Your task to perform on an android device: When is my next appointment? Image 0: 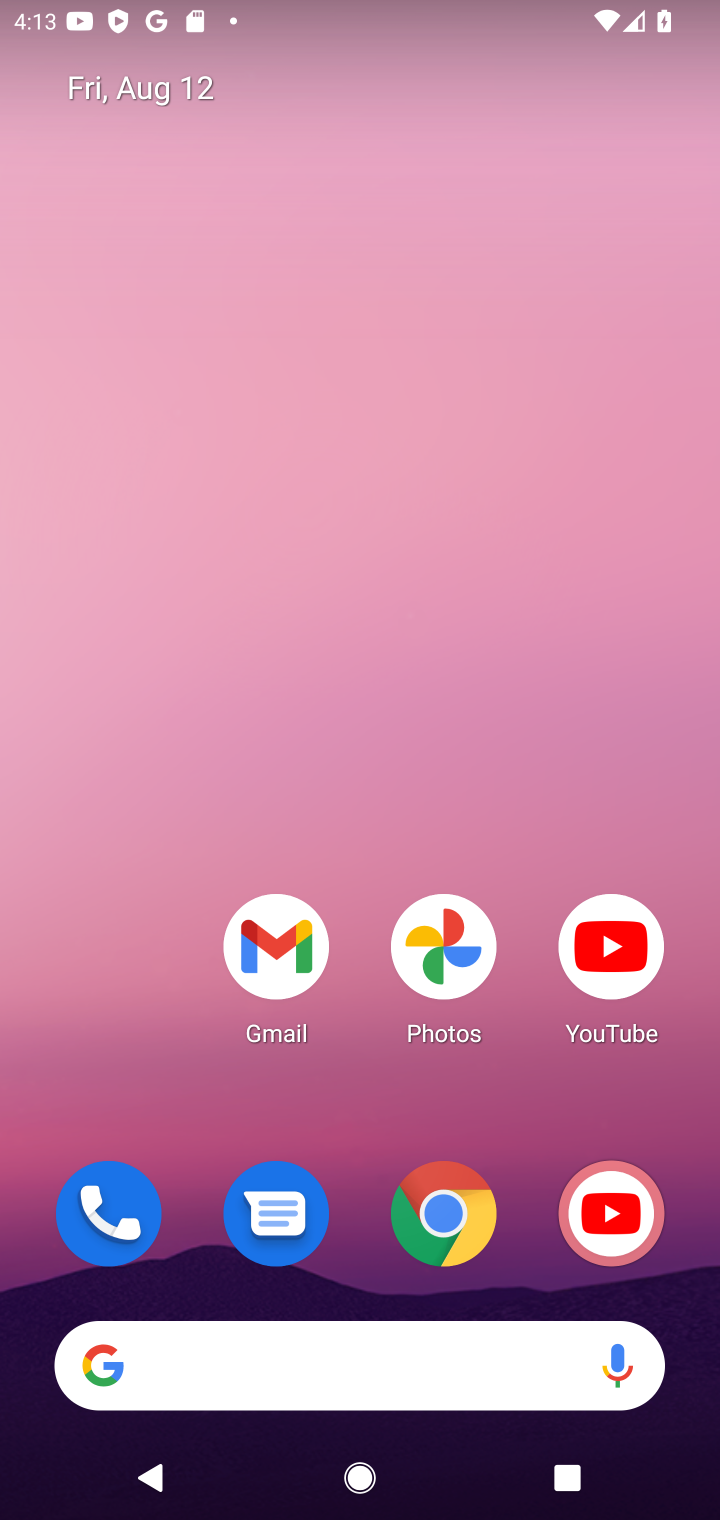
Step 0: drag from (353, 1105) to (327, 6)
Your task to perform on an android device: When is my next appointment? Image 1: 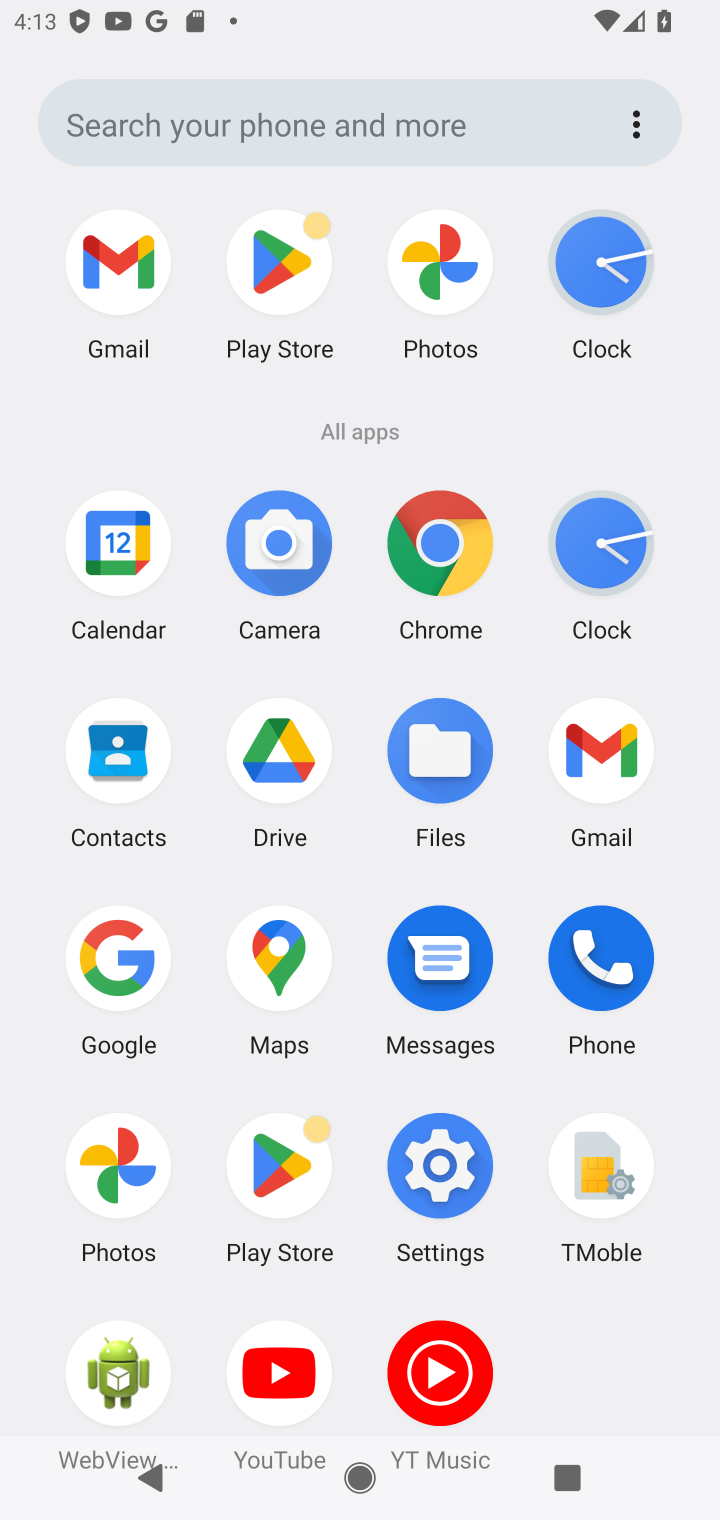
Step 1: click (107, 529)
Your task to perform on an android device: When is my next appointment? Image 2: 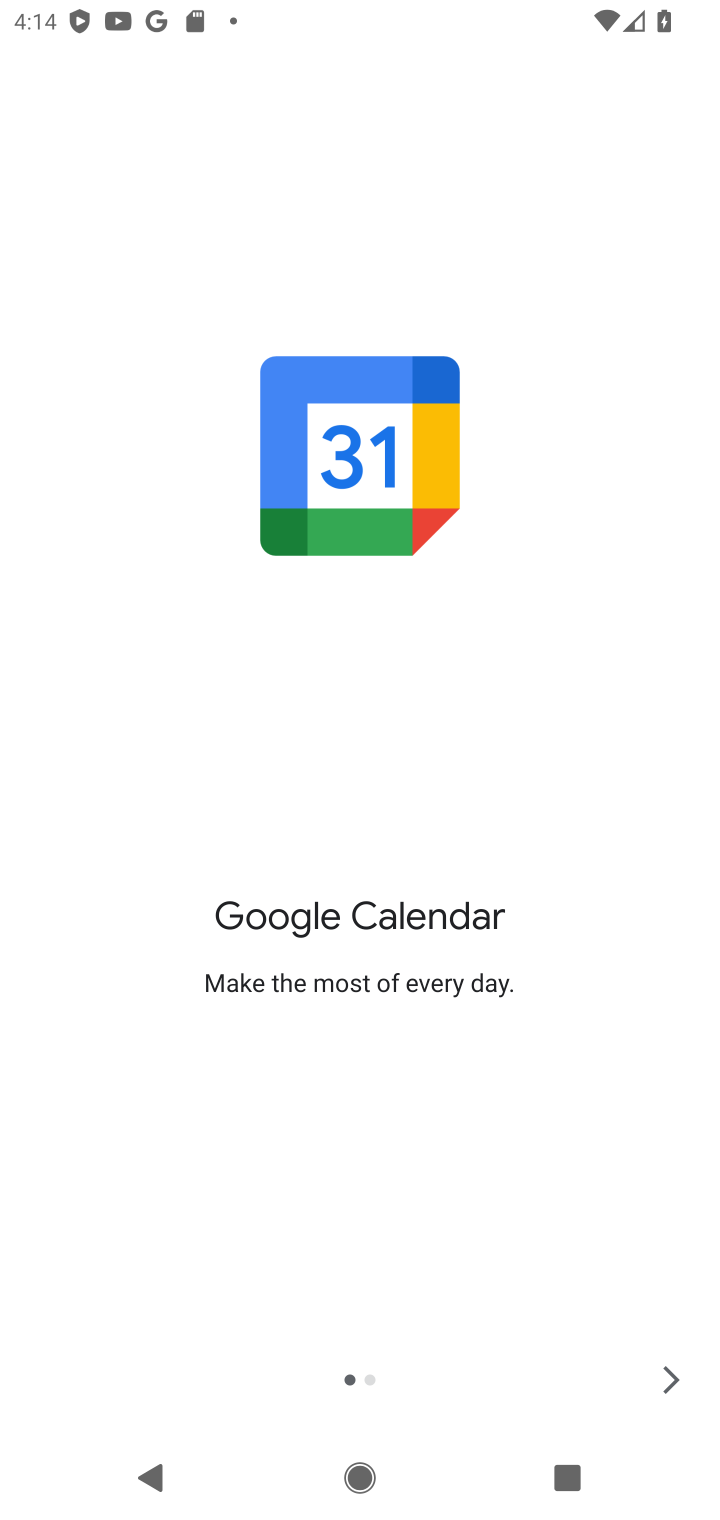
Step 2: click (678, 1378)
Your task to perform on an android device: When is my next appointment? Image 3: 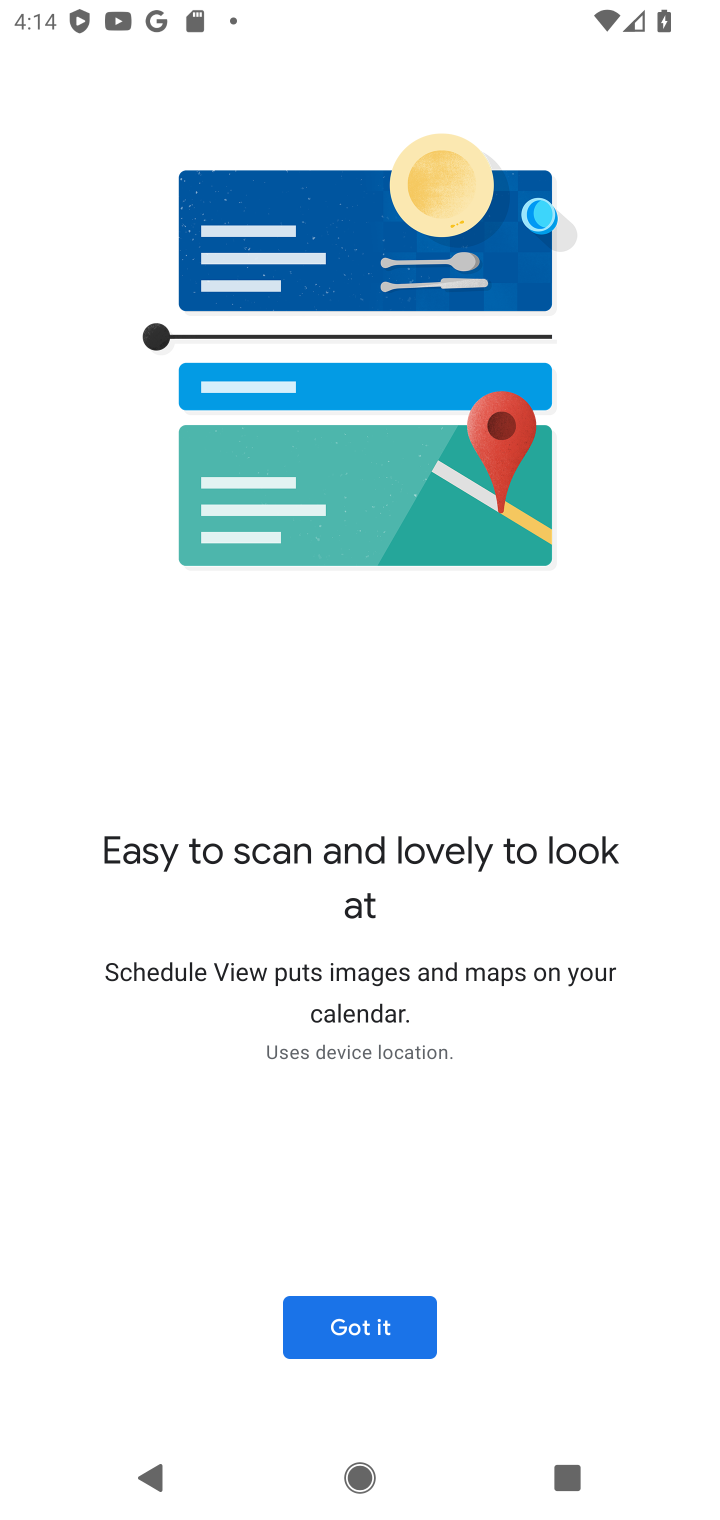
Step 3: click (385, 1332)
Your task to perform on an android device: When is my next appointment? Image 4: 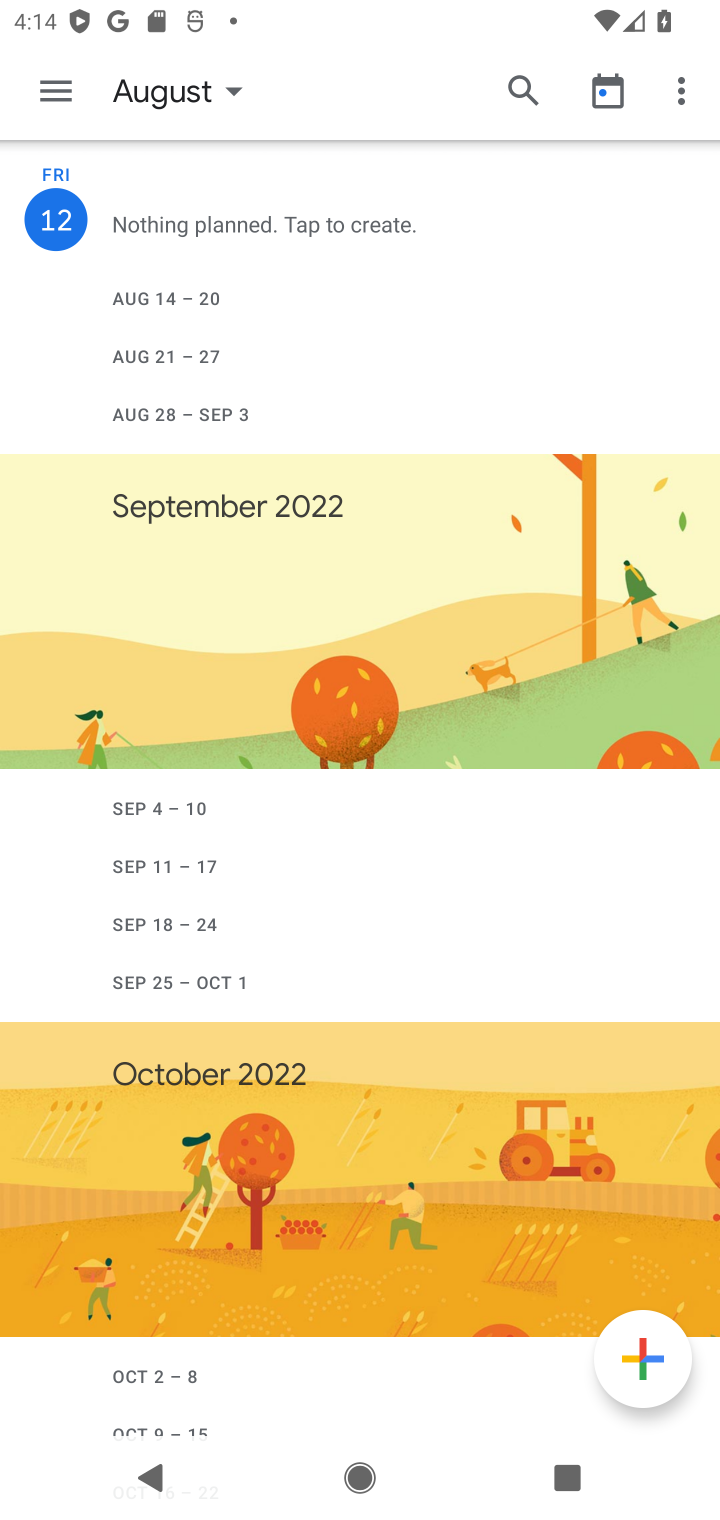
Step 4: click (56, 80)
Your task to perform on an android device: When is my next appointment? Image 5: 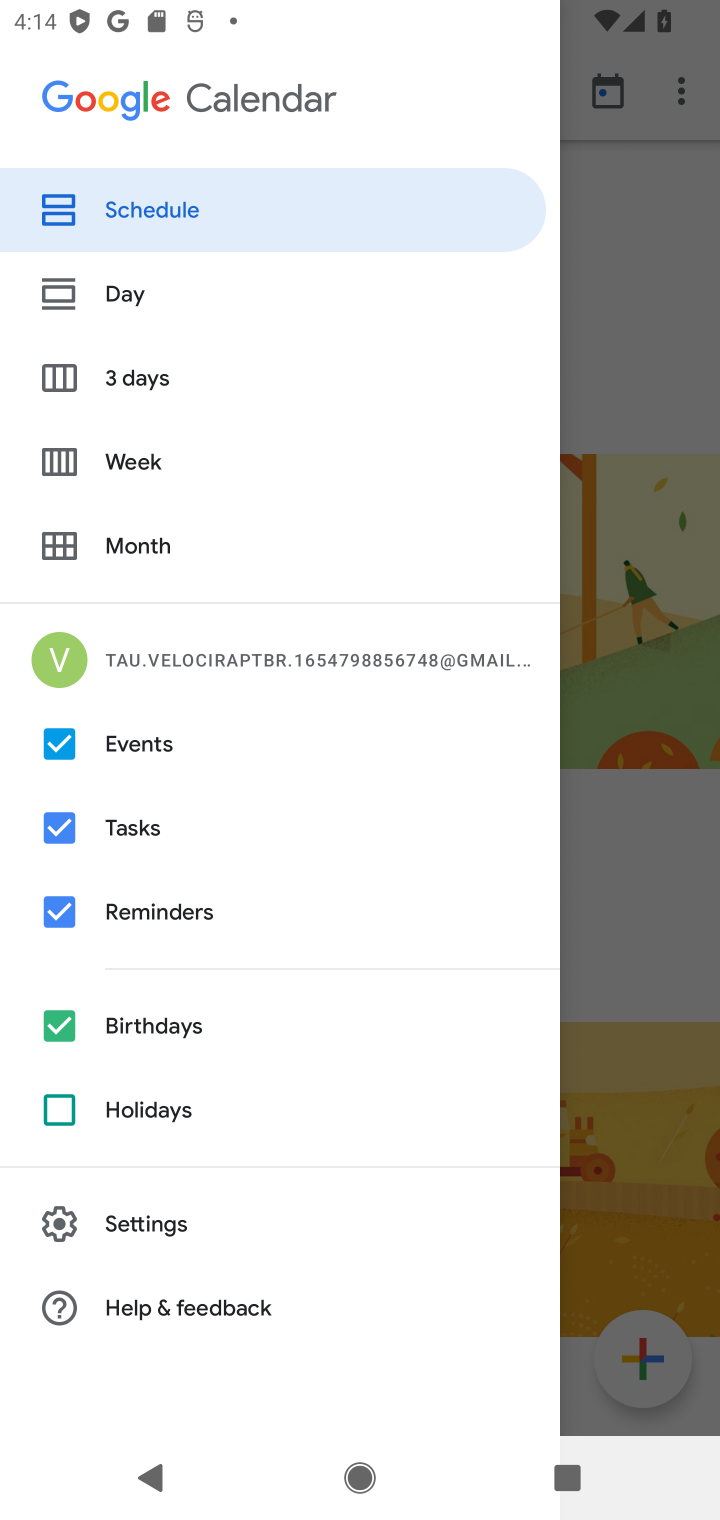
Step 5: click (130, 458)
Your task to perform on an android device: When is my next appointment? Image 6: 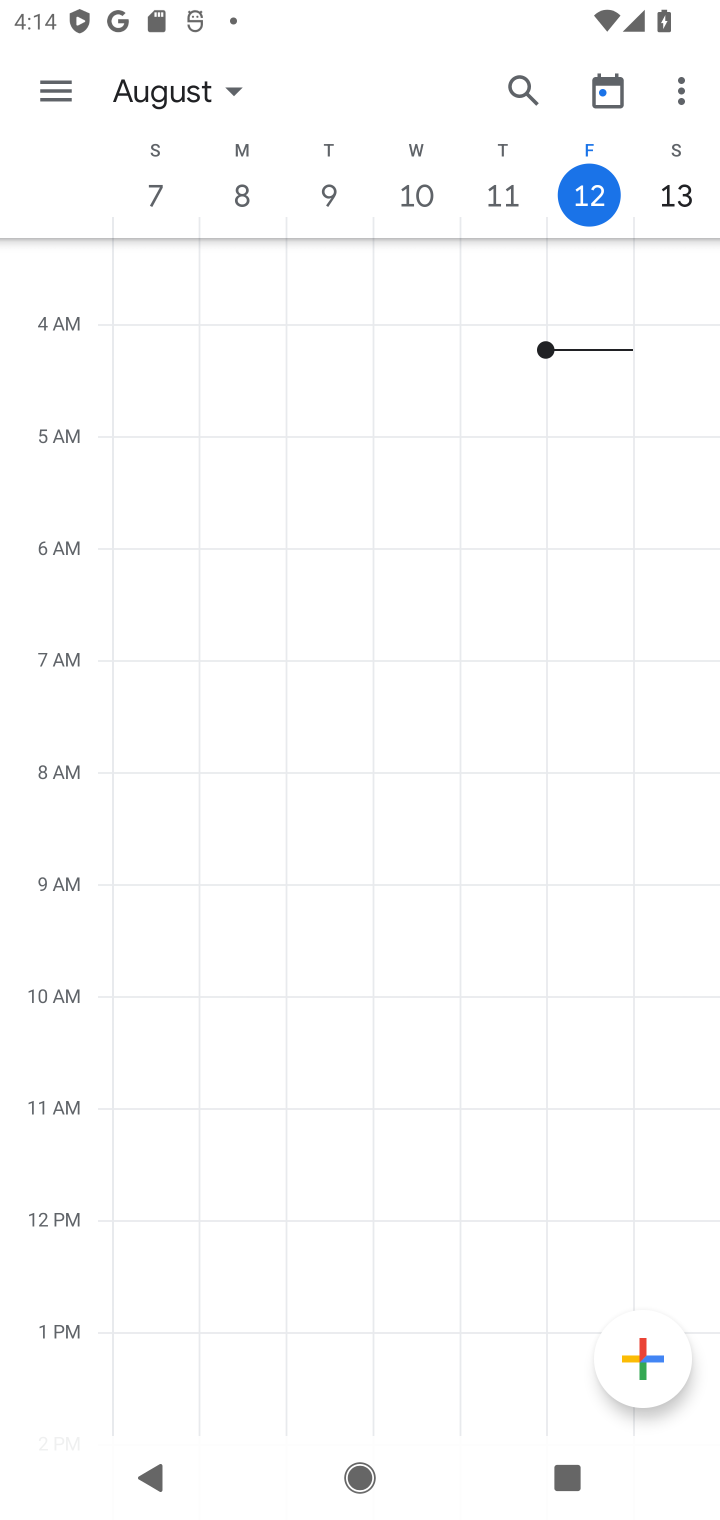
Step 6: task complete